Your task to perform on an android device: Set the phone to "Do not disturb". Image 0: 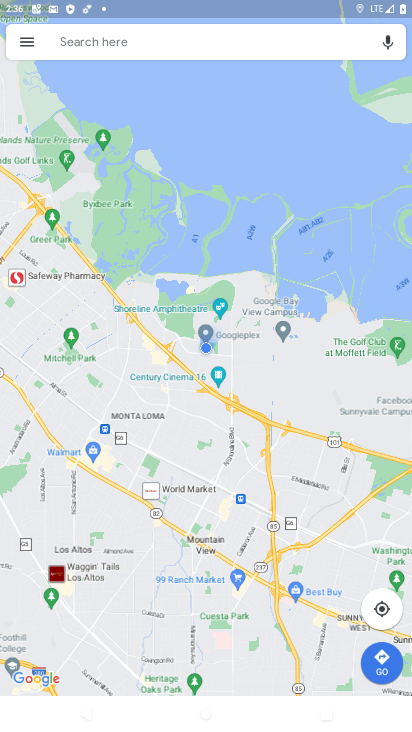
Step 0: press home button
Your task to perform on an android device: Set the phone to "Do not disturb". Image 1: 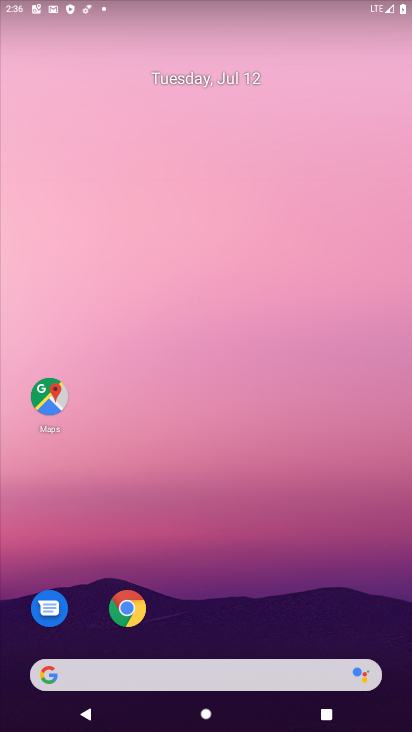
Step 1: drag from (195, 238) to (205, 125)
Your task to perform on an android device: Set the phone to "Do not disturb". Image 2: 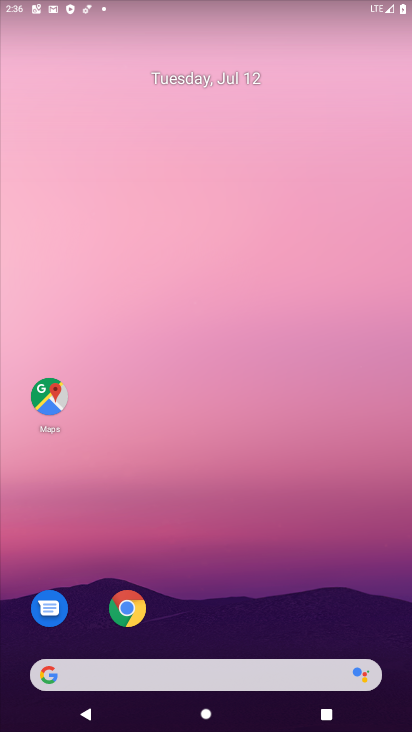
Step 2: drag from (186, 543) to (261, 176)
Your task to perform on an android device: Set the phone to "Do not disturb". Image 3: 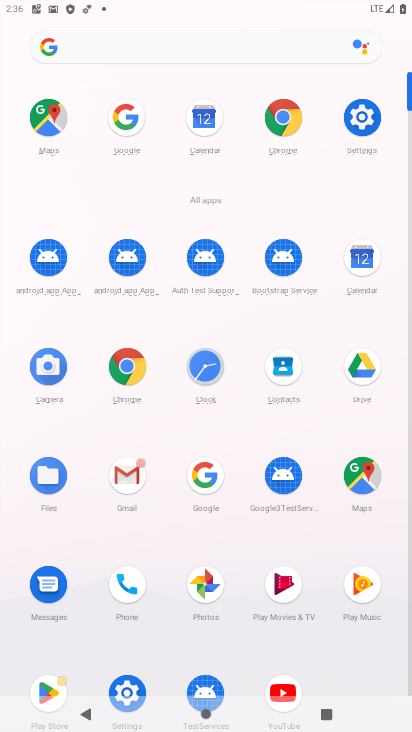
Step 3: click (362, 115)
Your task to perform on an android device: Set the phone to "Do not disturb". Image 4: 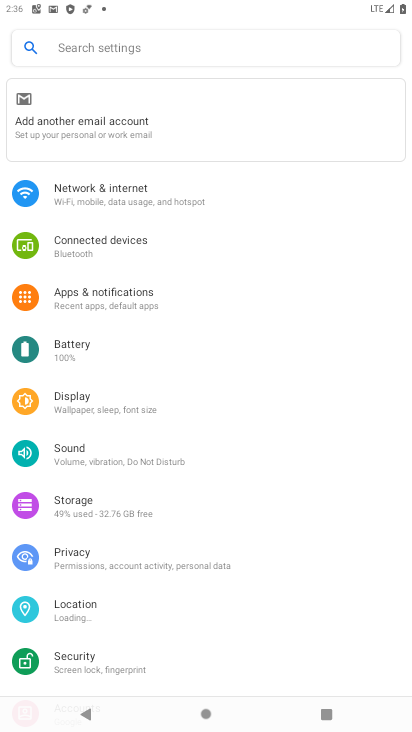
Step 4: click (56, 457)
Your task to perform on an android device: Set the phone to "Do not disturb". Image 5: 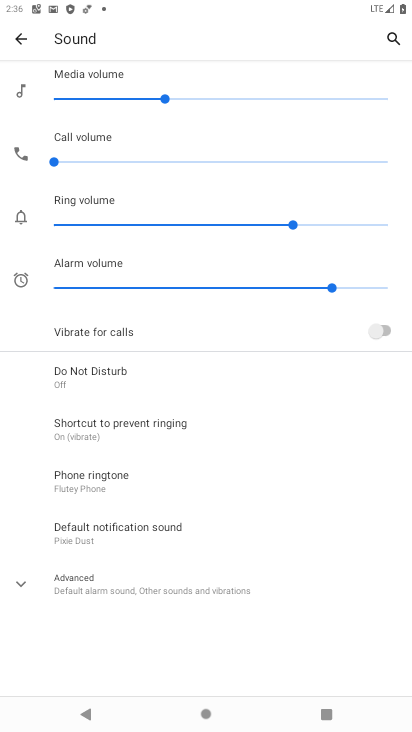
Step 5: click (121, 384)
Your task to perform on an android device: Set the phone to "Do not disturb". Image 6: 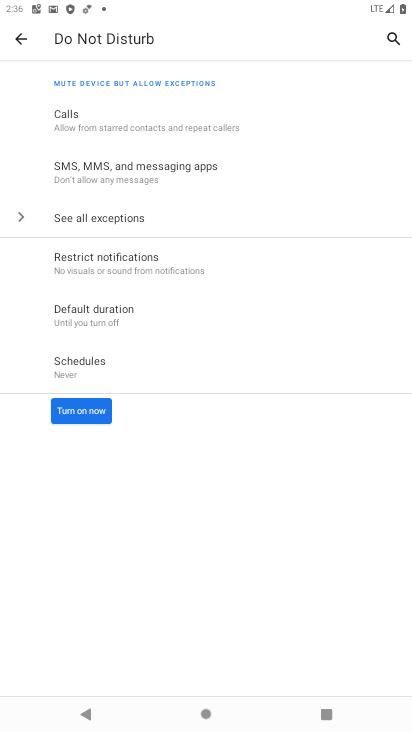
Step 6: click (79, 413)
Your task to perform on an android device: Set the phone to "Do not disturb". Image 7: 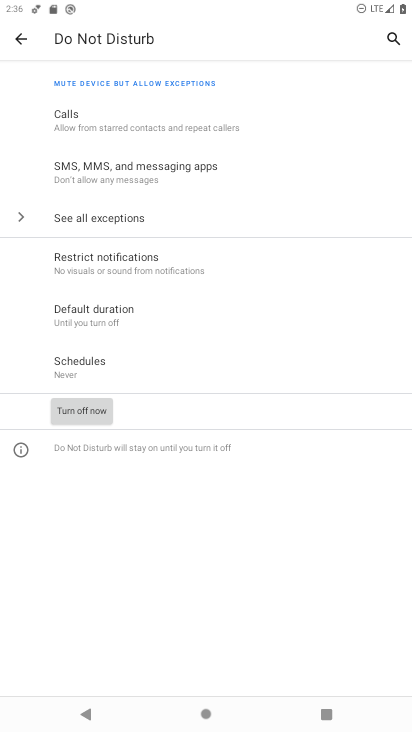
Step 7: task complete